Your task to perform on an android device: visit the assistant section in the google photos Image 0: 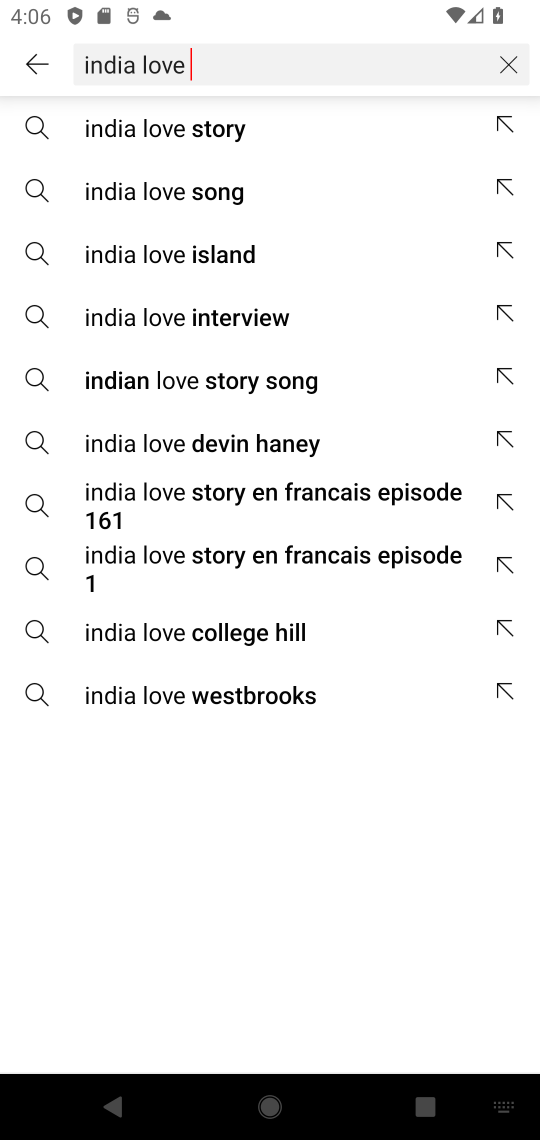
Step 0: press home button
Your task to perform on an android device: visit the assistant section in the google photos Image 1: 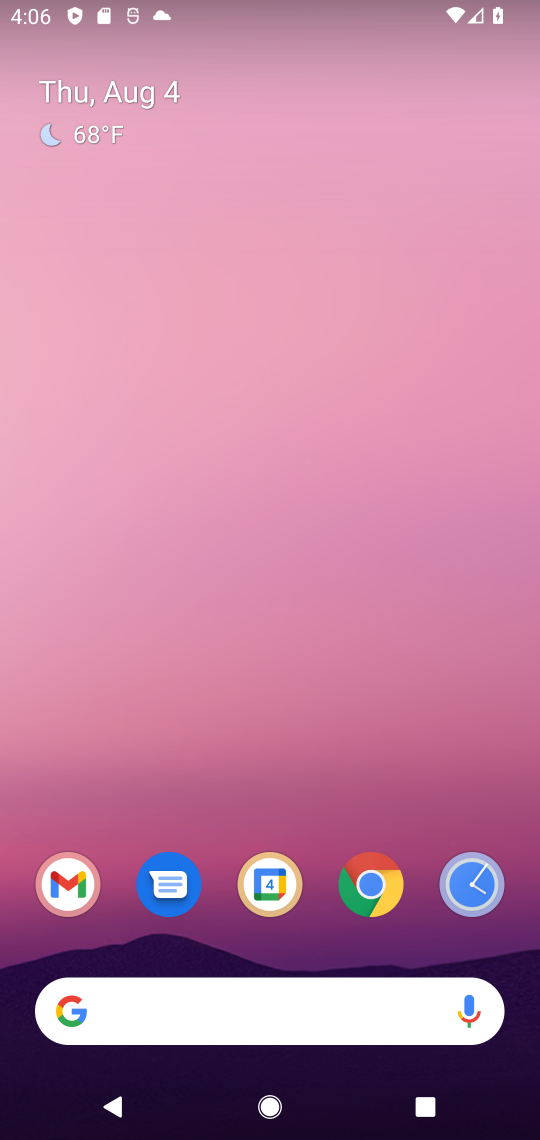
Step 1: drag from (194, 970) to (169, 172)
Your task to perform on an android device: visit the assistant section in the google photos Image 2: 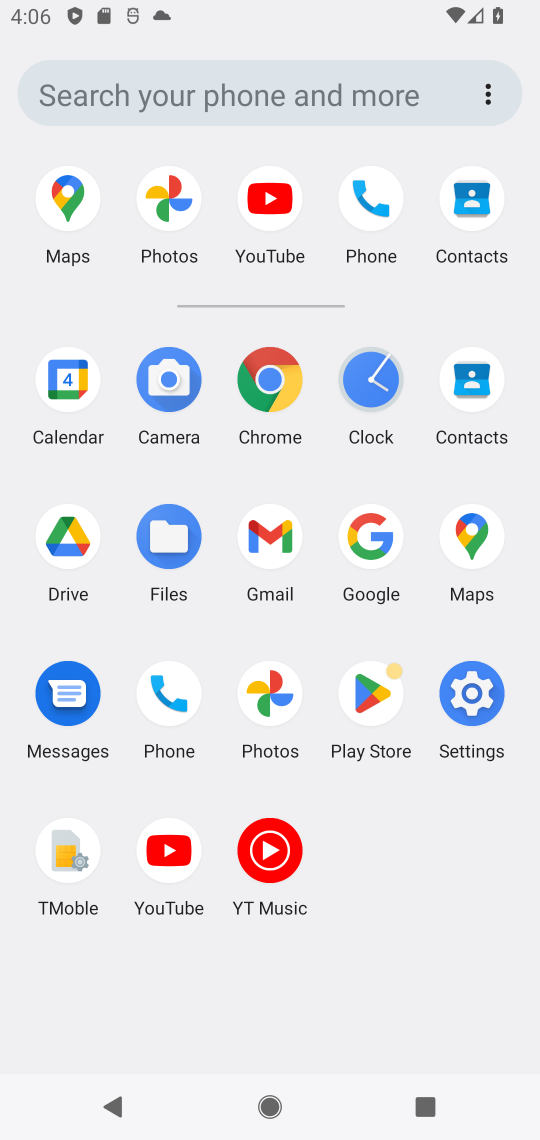
Step 2: click (274, 694)
Your task to perform on an android device: visit the assistant section in the google photos Image 3: 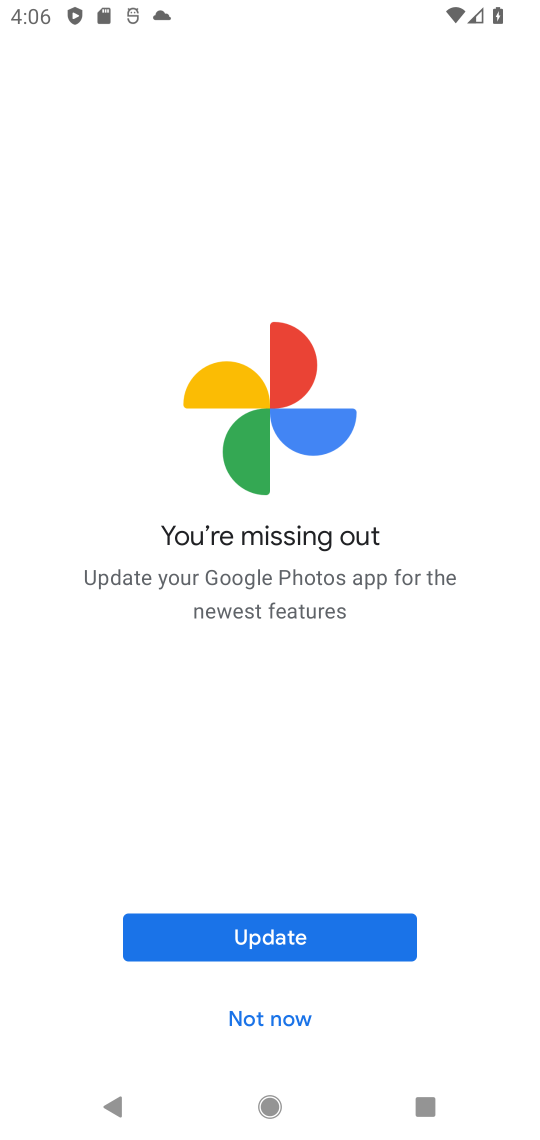
Step 3: click (281, 1015)
Your task to perform on an android device: visit the assistant section in the google photos Image 4: 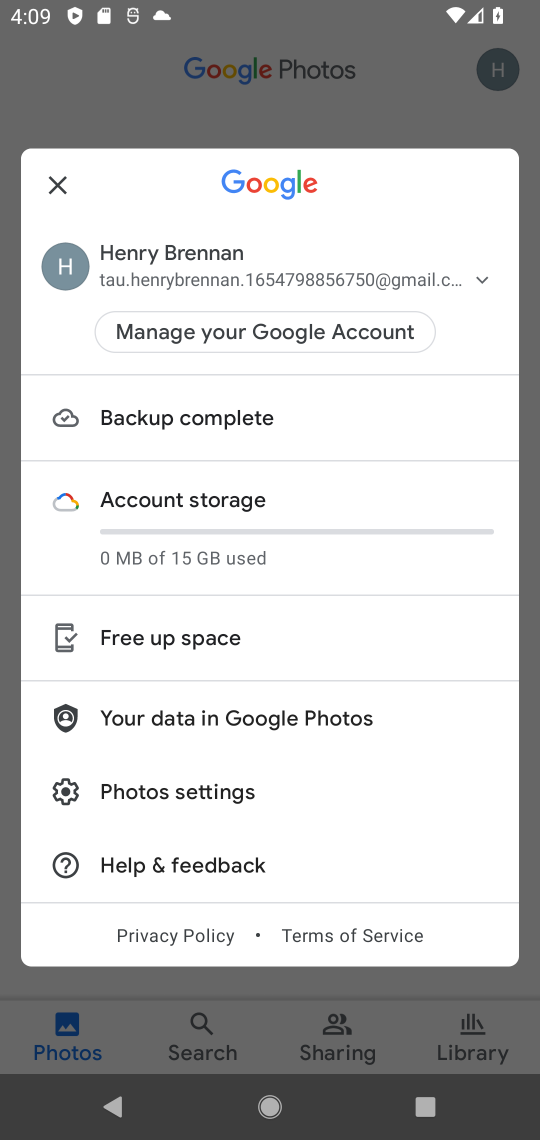
Step 4: click (246, 1035)
Your task to perform on an android device: visit the assistant section in the google photos Image 5: 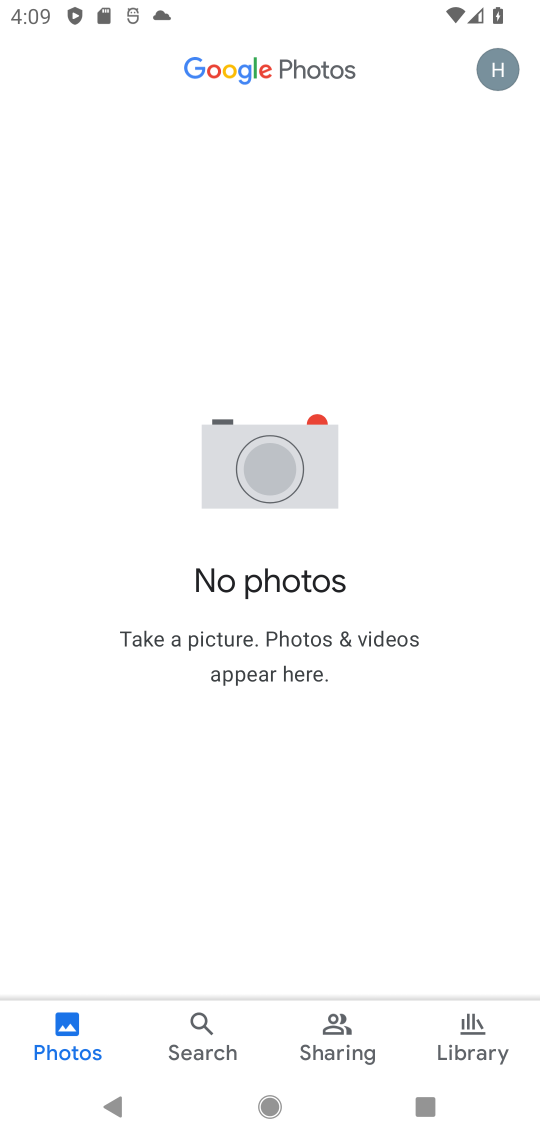
Step 5: task complete